Your task to perform on an android device: Open Chrome and go to the settings page Image 0: 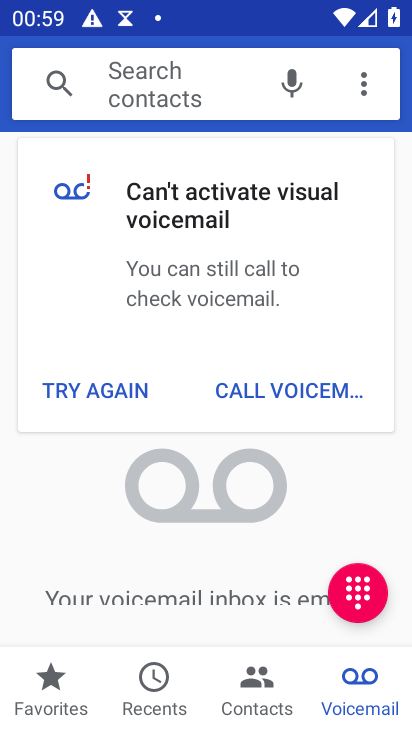
Step 0: press home button
Your task to perform on an android device: Open Chrome and go to the settings page Image 1: 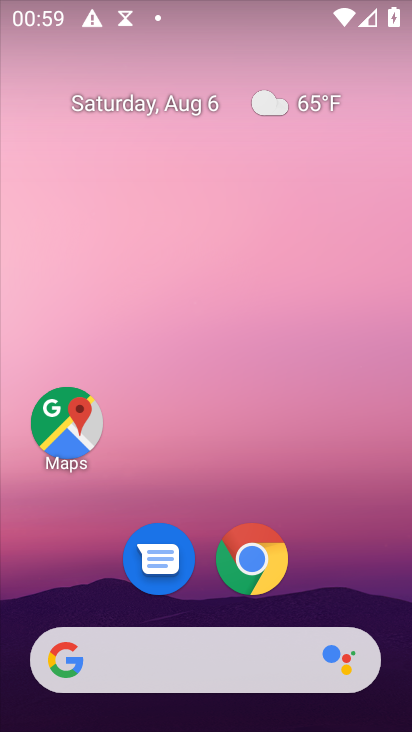
Step 1: drag from (353, 612) to (250, 116)
Your task to perform on an android device: Open Chrome and go to the settings page Image 2: 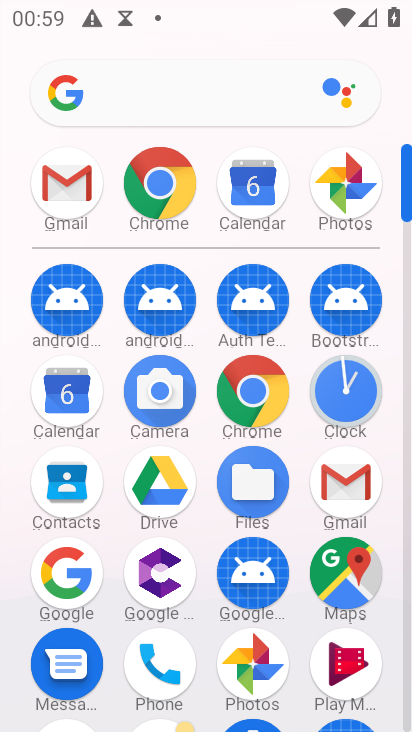
Step 2: click (408, 721)
Your task to perform on an android device: Open Chrome and go to the settings page Image 3: 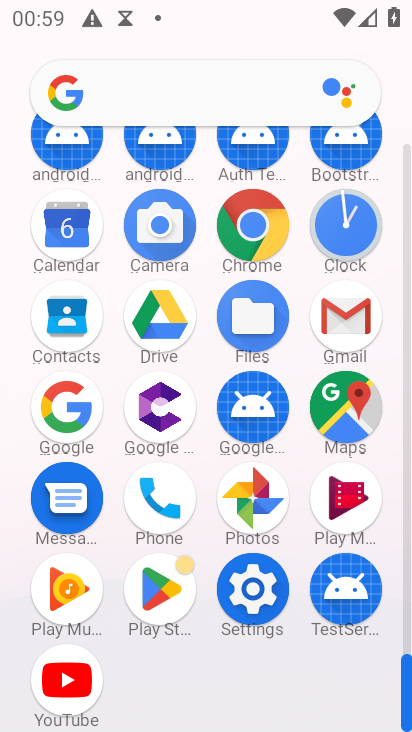
Step 3: click (240, 587)
Your task to perform on an android device: Open Chrome and go to the settings page Image 4: 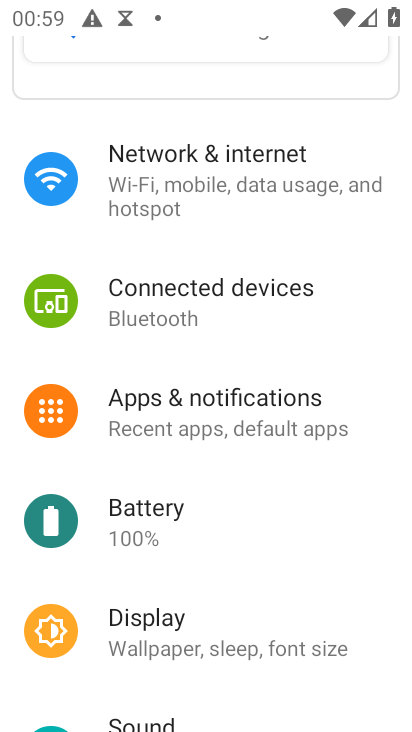
Step 4: press home button
Your task to perform on an android device: Open Chrome and go to the settings page Image 5: 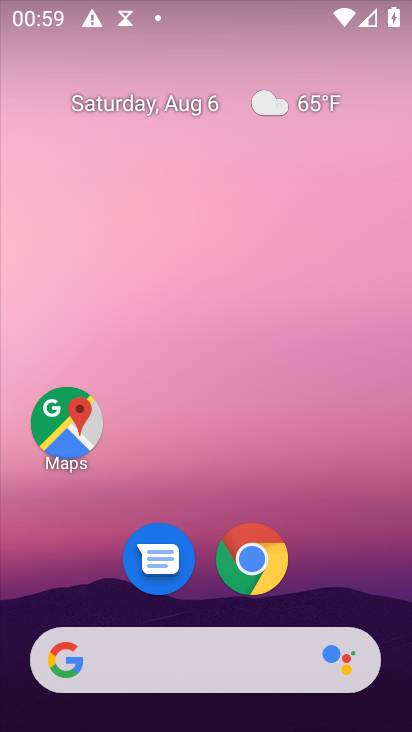
Step 5: click (258, 561)
Your task to perform on an android device: Open Chrome and go to the settings page Image 6: 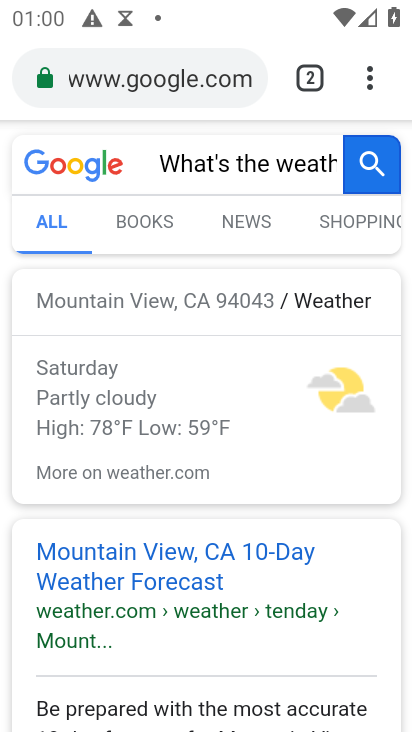
Step 6: click (373, 79)
Your task to perform on an android device: Open Chrome and go to the settings page Image 7: 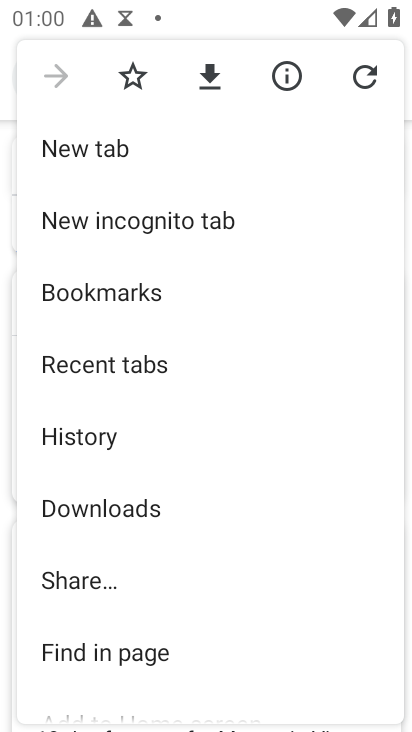
Step 7: drag from (242, 682) to (198, 72)
Your task to perform on an android device: Open Chrome and go to the settings page Image 8: 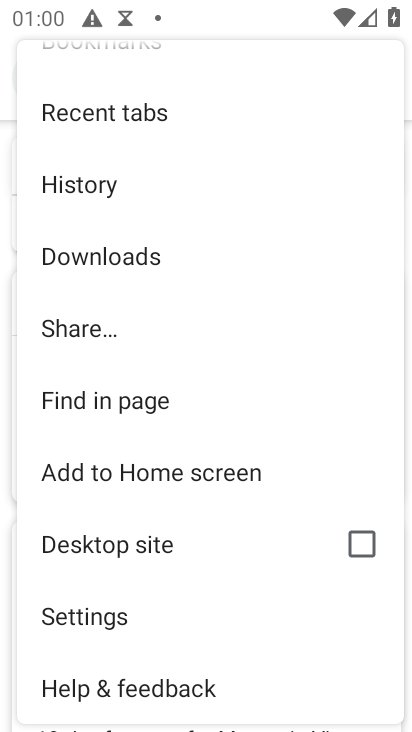
Step 8: click (158, 613)
Your task to perform on an android device: Open Chrome and go to the settings page Image 9: 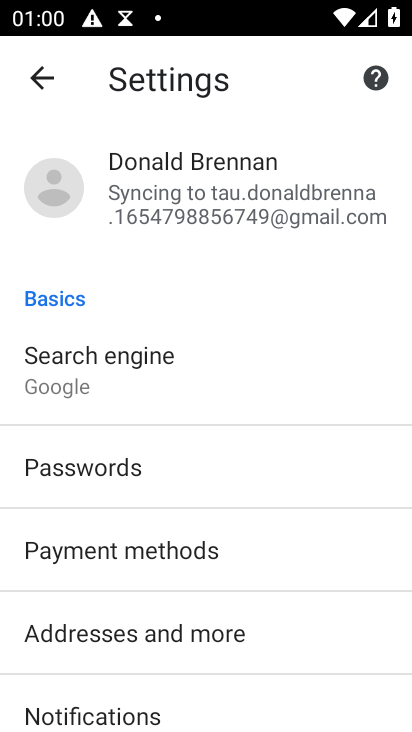
Step 9: task complete